Your task to perform on an android device: Do I have any events today? Image 0: 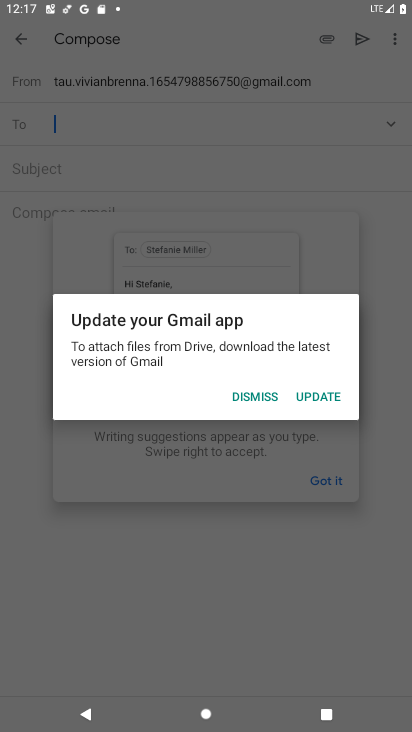
Step 0: press home button
Your task to perform on an android device: Do I have any events today? Image 1: 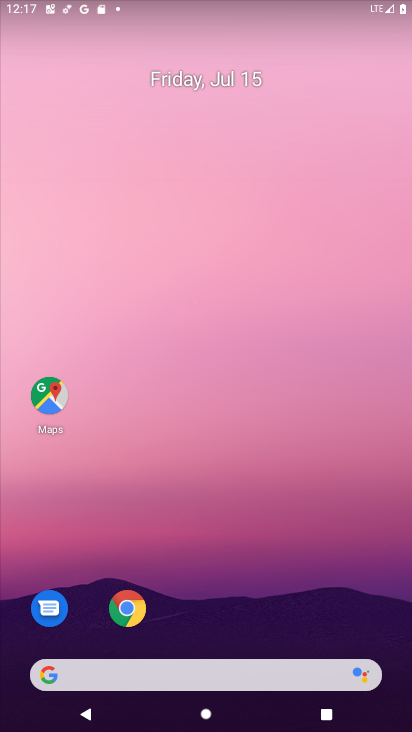
Step 1: drag from (244, 544) to (158, 127)
Your task to perform on an android device: Do I have any events today? Image 2: 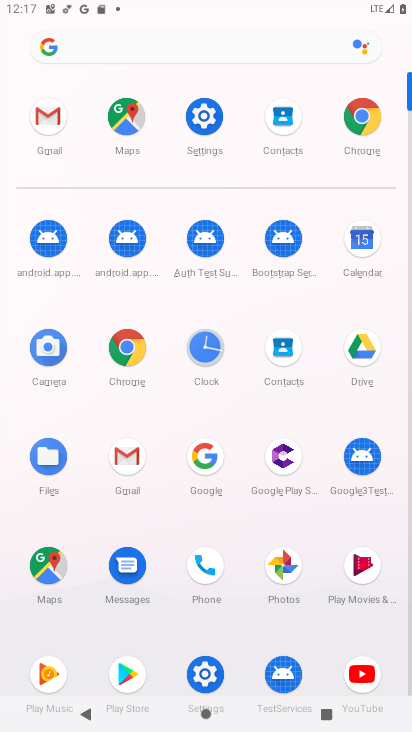
Step 2: click (363, 236)
Your task to perform on an android device: Do I have any events today? Image 3: 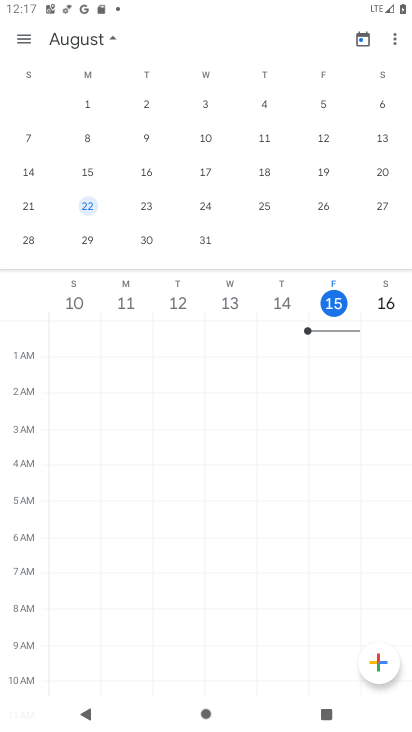
Step 3: click (19, 33)
Your task to perform on an android device: Do I have any events today? Image 4: 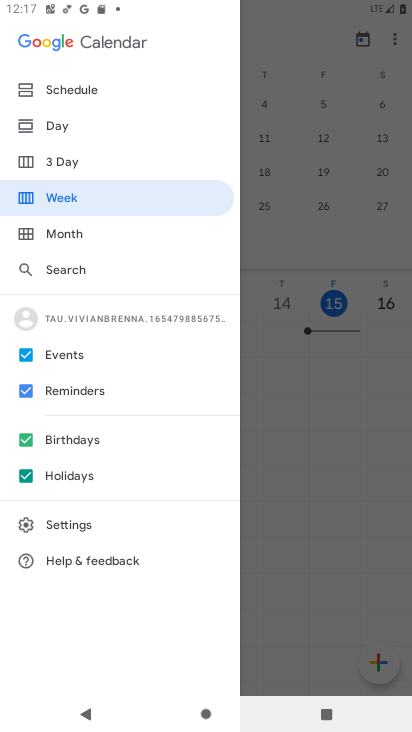
Step 4: click (48, 124)
Your task to perform on an android device: Do I have any events today? Image 5: 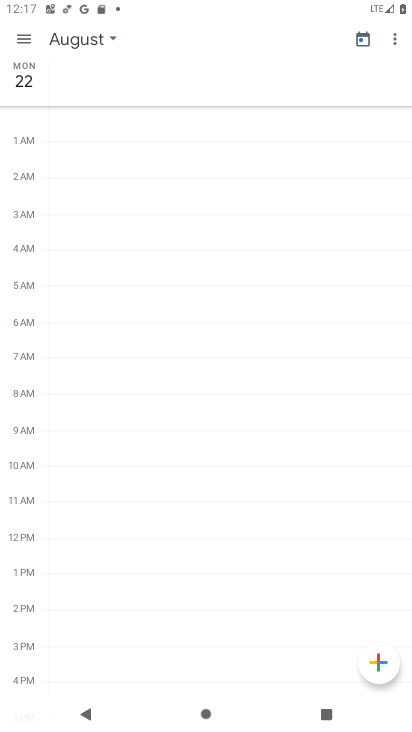
Step 5: click (105, 41)
Your task to perform on an android device: Do I have any events today? Image 6: 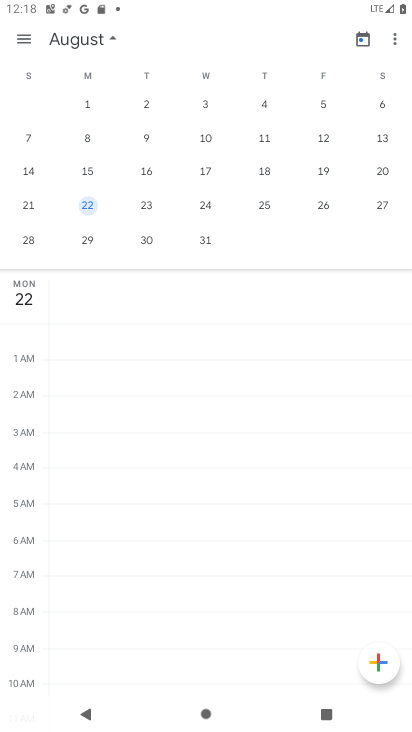
Step 6: drag from (28, 136) to (339, 178)
Your task to perform on an android device: Do I have any events today? Image 7: 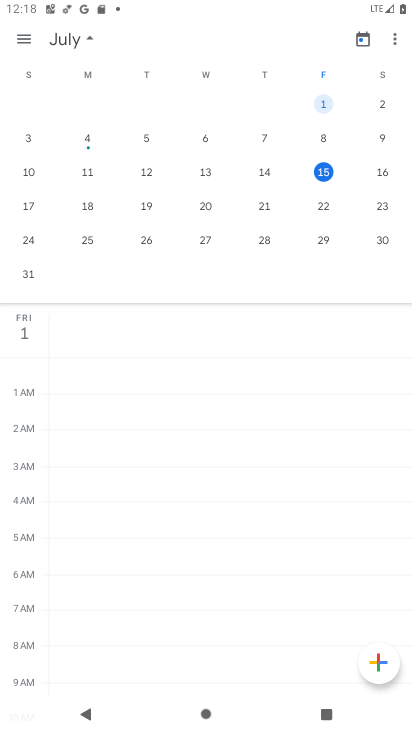
Step 7: click (322, 171)
Your task to perform on an android device: Do I have any events today? Image 8: 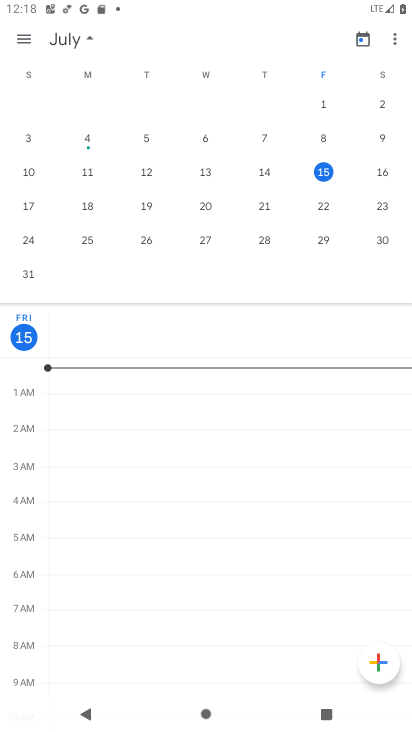
Step 8: task complete